Your task to perform on an android device: add a label to a message in the gmail app Image 0: 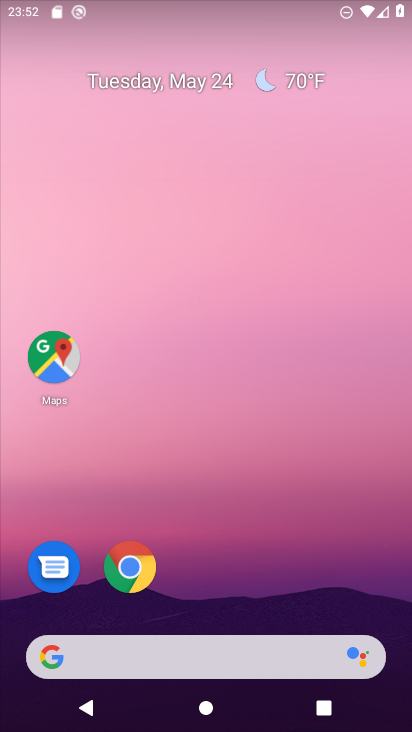
Step 0: drag from (311, 569) to (219, 40)
Your task to perform on an android device: add a label to a message in the gmail app Image 1: 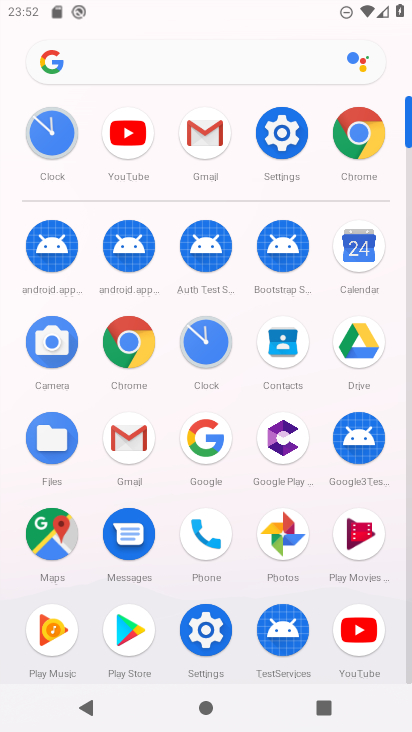
Step 1: click (209, 136)
Your task to perform on an android device: add a label to a message in the gmail app Image 2: 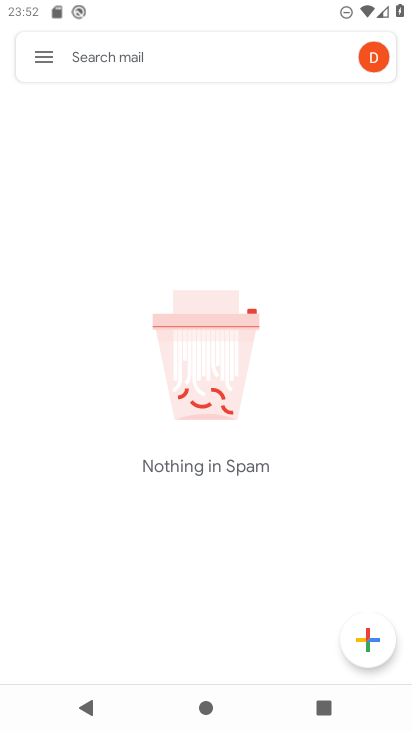
Step 2: click (40, 61)
Your task to perform on an android device: add a label to a message in the gmail app Image 3: 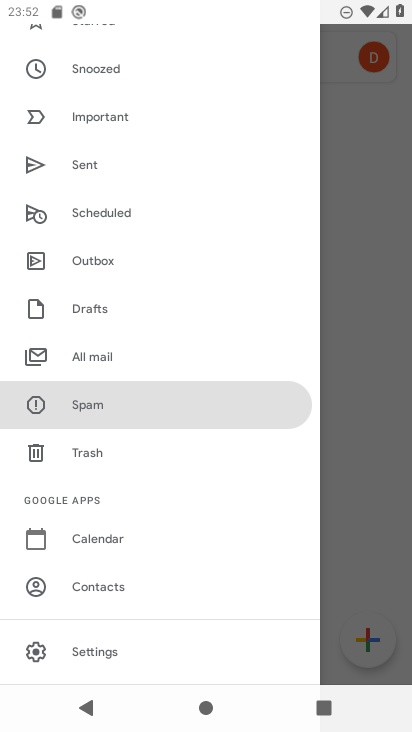
Step 3: click (131, 355)
Your task to perform on an android device: add a label to a message in the gmail app Image 4: 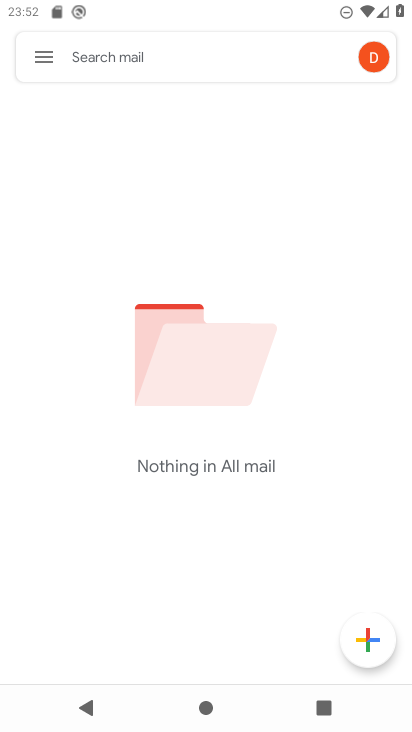
Step 4: task complete